Your task to perform on an android device: turn pop-ups on in chrome Image 0: 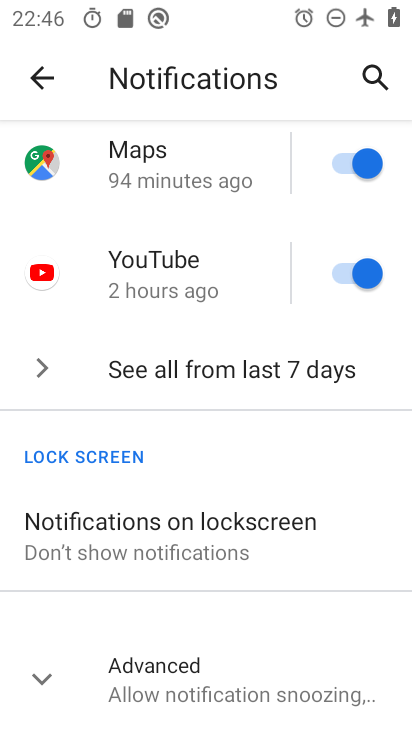
Step 0: press home button
Your task to perform on an android device: turn pop-ups on in chrome Image 1: 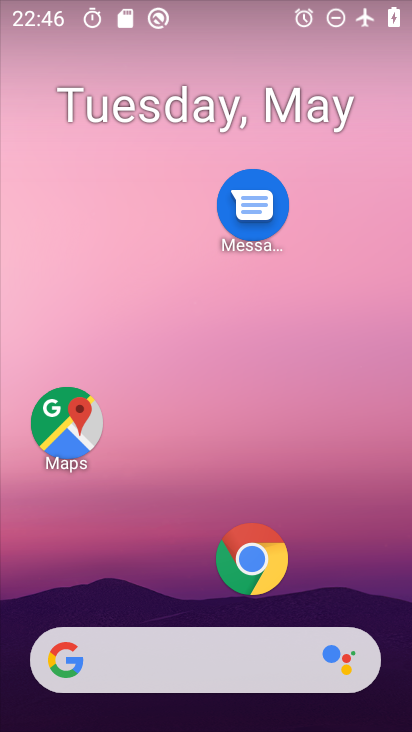
Step 1: click (234, 584)
Your task to perform on an android device: turn pop-ups on in chrome Image 2: 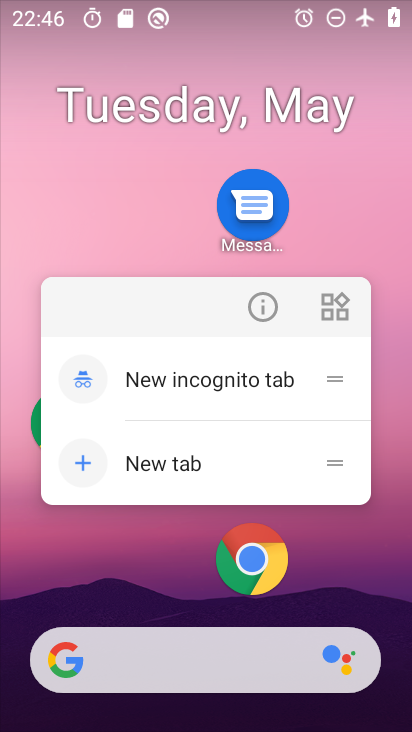
Step 2: click (229, 575)
Your task to perform on an android device: turn pop-ups on in chrome Image 3: 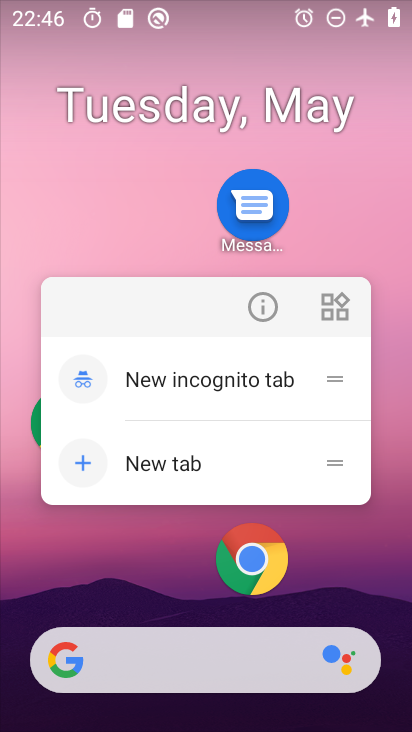
Step 3: click (244, 545)
Your task to perform on an android device: turn pop-ups on in chrome Image 4: 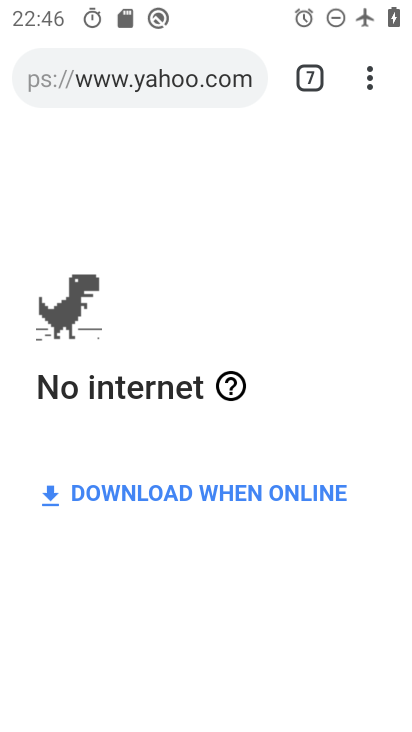
Step 4: drag from (365, 72) to (171, 636)
Your task to perform on an android device: turn pop-ups on in chrome Image 5: 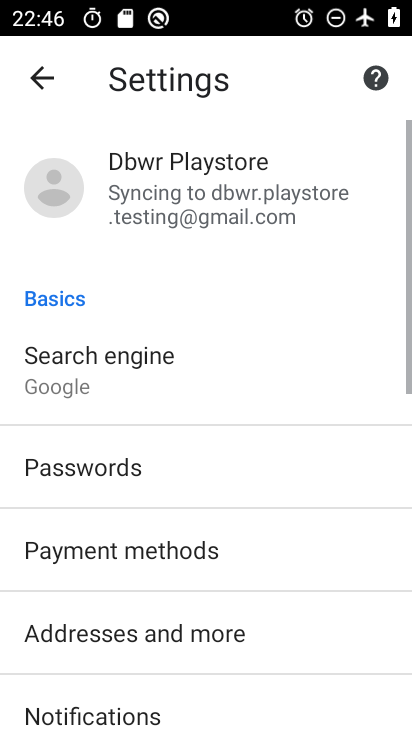
Step 5: drag from (168, 601) to (197, 336)
Your task to perform on an android device: turn pop-ups on in chrome Image 6: 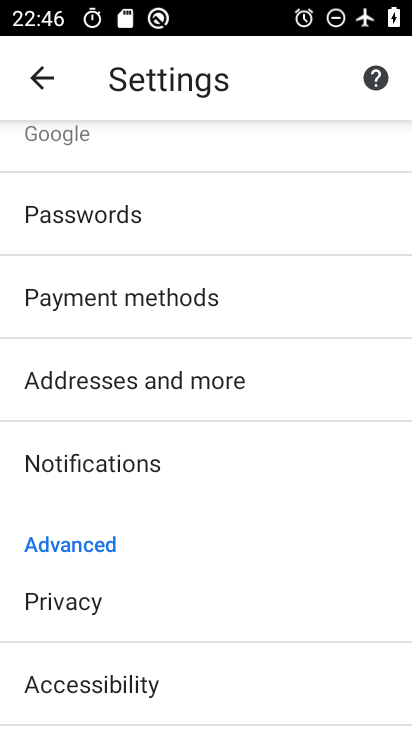
Step 6: drag from (179, 652) to (224, 368)
Your task to perform on an android device: turn pop-ups on in chrome Image 7: 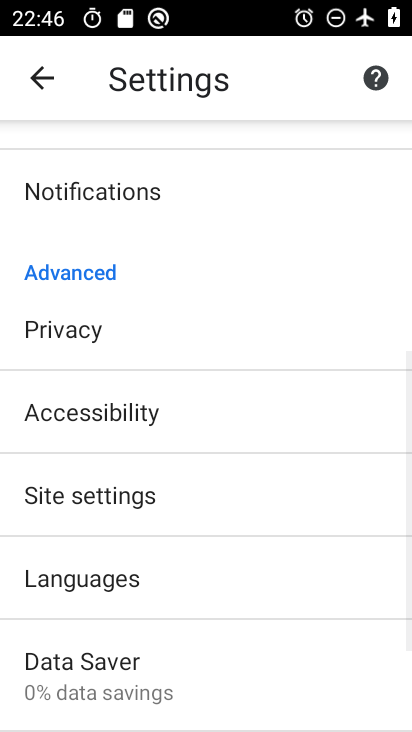
Step 7: click (203, 582)
Your task to perform on an android device: turn pop-ups on in chrome Image 8: 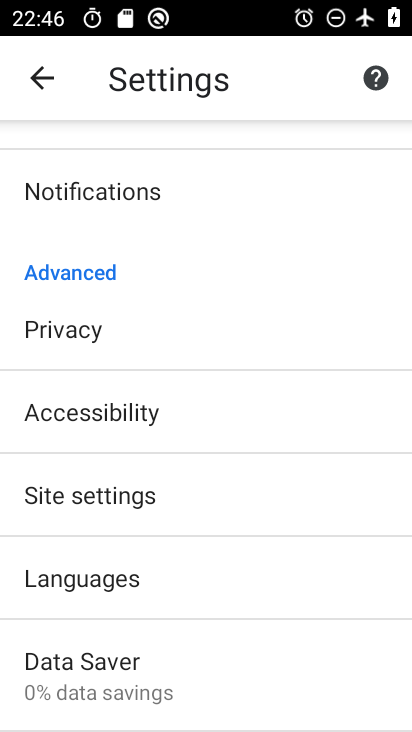
Step 8: drag from (203, 582) to (246, 459)
Your task to perform on an android device: turn pop-ups on in chrome Image 9: 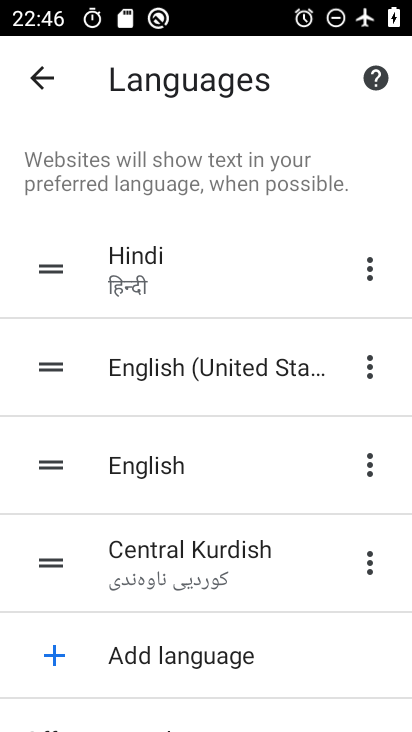
Step 9: click (41, 65)
Your task to perform on an android device: turn pop-ups on in chrome Image 10: 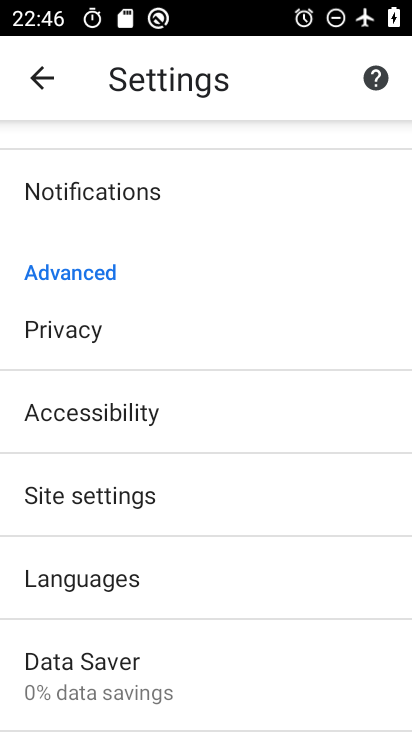
Step 10: click (186, 497)
Your task to perform on an android device: turn pop-ups on in chrome Image 11: 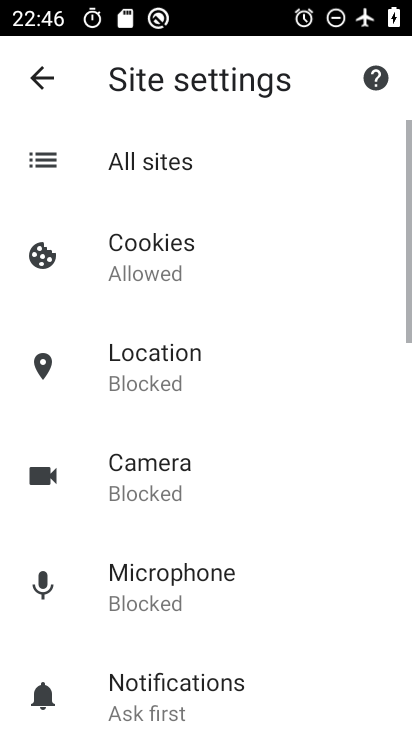
Step 11: drag from (236, 619) to (295, 310)
Your task to perform on an android device: turn pop-ups on in chrome Image 12: 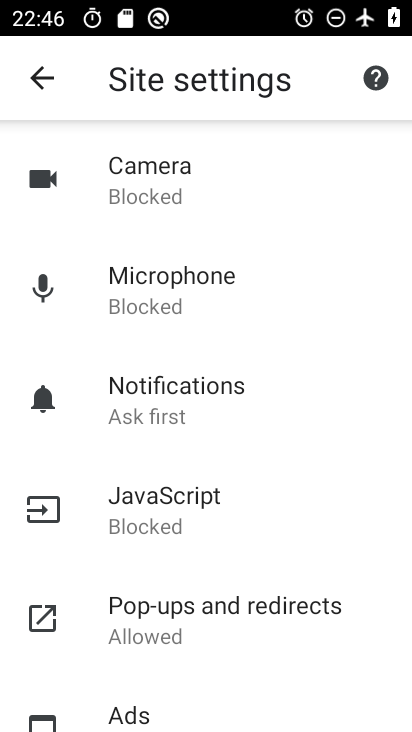
Step 12: click (251, 625)
Your task to perform on an android device: turn pop-ups on in chrome Image 13: 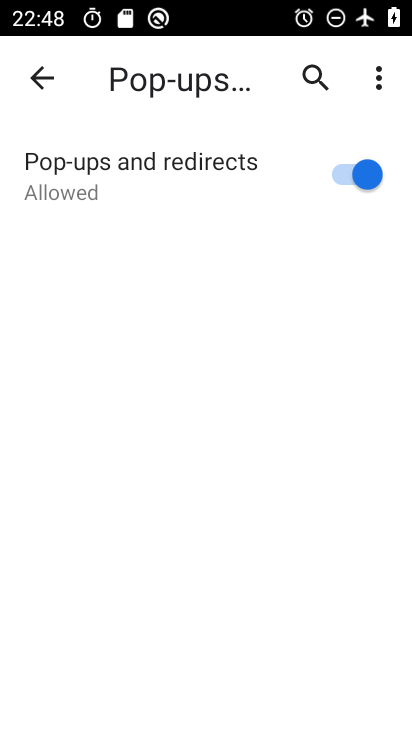
Step 13: task complete